Your task to perform on an android device: open app "Truecaller" (install if not already installed) and enter user name: "coauthor@gmail.com" and password: "quadrangle" Image 0: 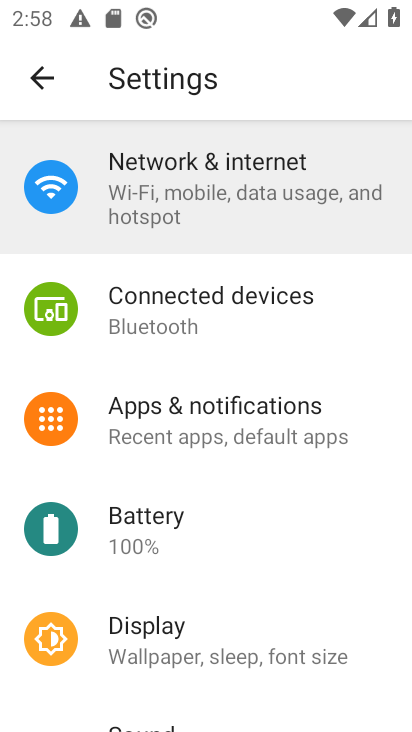
Step 0: press home button
Your task to perform on an android device: open app "Truecaller" (install if not already installed) and enter user name: "coauthor@gmail.com" and password: "quadrangle" Image 1: 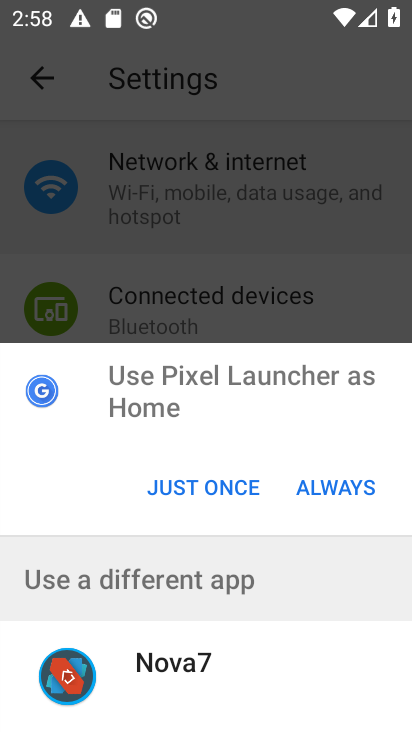
Step 1: click (189, 485)
Your task to perform on an android device: open app "Truecaller" (install if not already installed) and enter user name: "coauthor@gmail.com" and password: "quadrangle" Image 2: 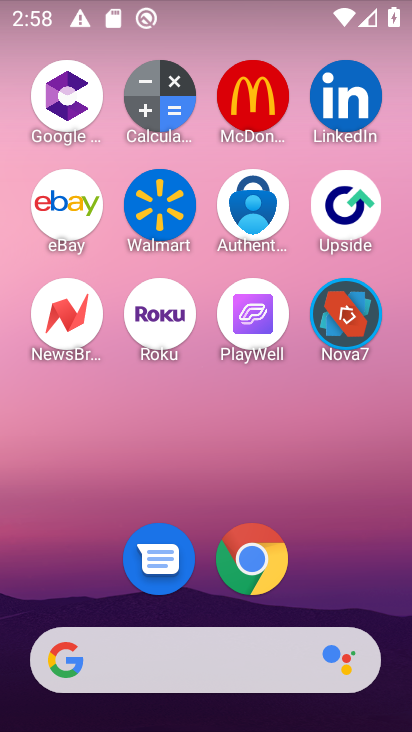
Step 2: drag from (201, 633) to (217, 156)
Your task to perform on an android device: open app "Truecaller" (install if not already installed) and enter user name: "coauthor@gmail.com" and password: "quadrangle" Image 3: 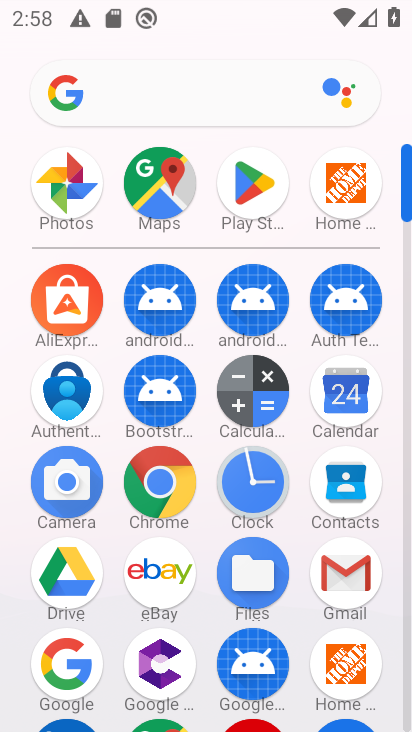
Step 3: click (257, 182)
Your task to perform on an android device: open app "Truecaller" (install if not already installed) and enter user name: "coauthor@gmail.com" and password: "quadrangle" Image 4: 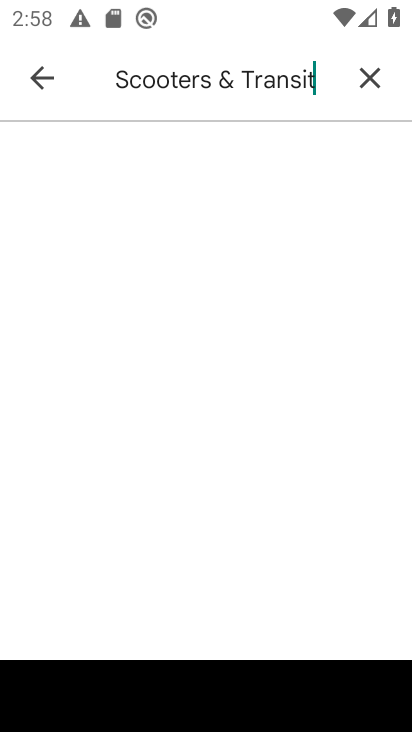
Step 4: click (357, 80)
Your task to perform on an android device: open app "Truecaller" (install if not already installed) and enter user name: "coauthor@gmail.com" and password: "quadrangle" Image 5: 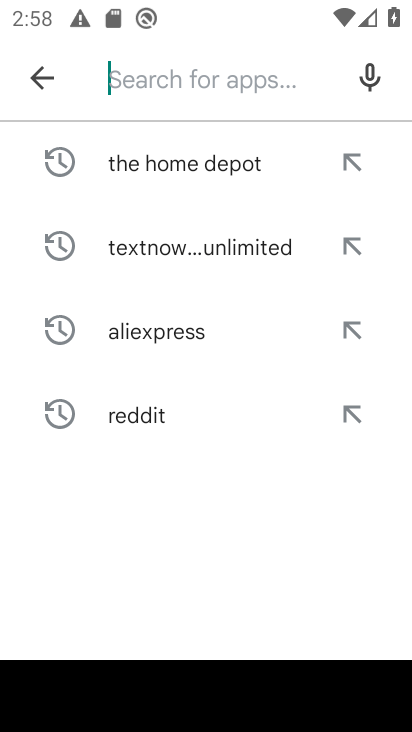
Step 5: type "Truecaller"
Your task to perform on an android device: open app "Truecaller" (install if not already installed) and enter user name: "coauthor@gmail.com" and password: "quadrangle" Image 6: 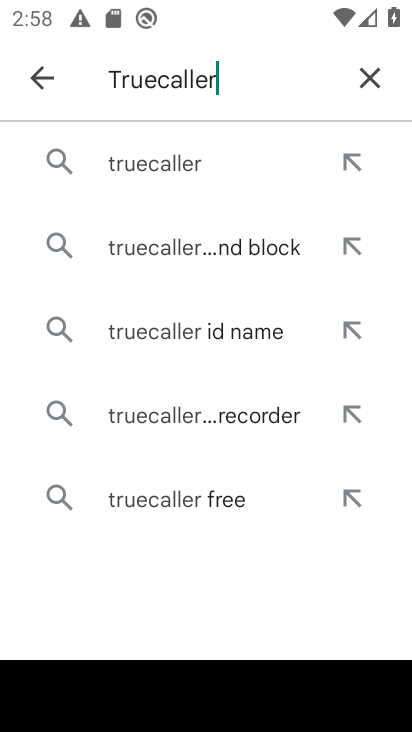
Step 6: click (188, 164)
Your task to perform on an android device: open app "Truecaller" (install if not already installed) and enter user name: "coauthor@gmail.com" and password: "quadrangle" Image 7: 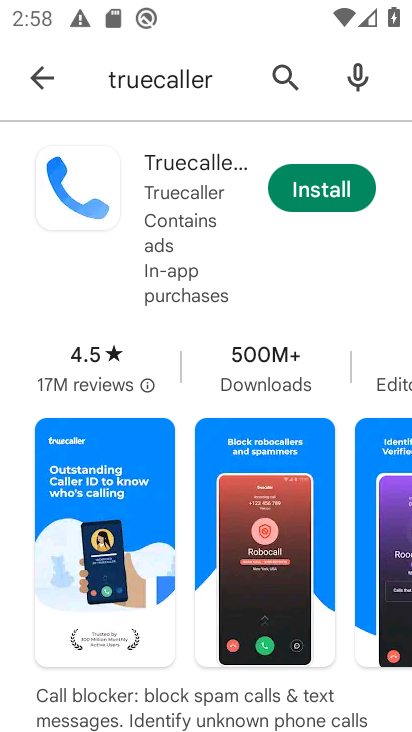
Step 7: click (350, 196)
Your task to perform on an android device: open app "Truecaller" (install if not already installed) and enter user name: "coauthor@gmail.com" and password: "quadrangle" Image 8: 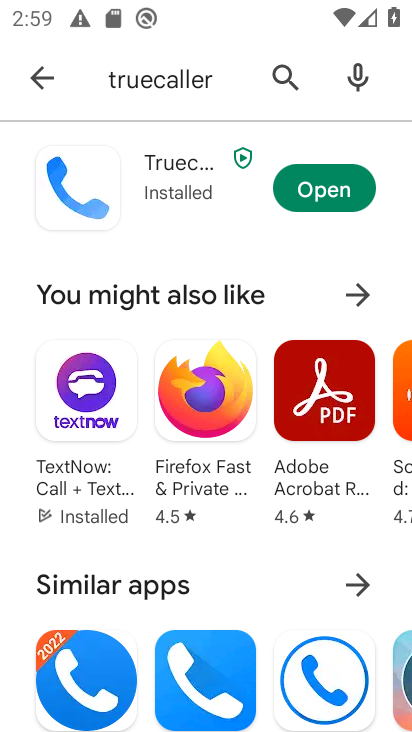
Step 8: click (340, 192)
Your task to perform on an android device: open app "Truecaller" (install if not already installed) and enter user name: "coauthor@gmail.com" and password: "quadrangle" Image 9: 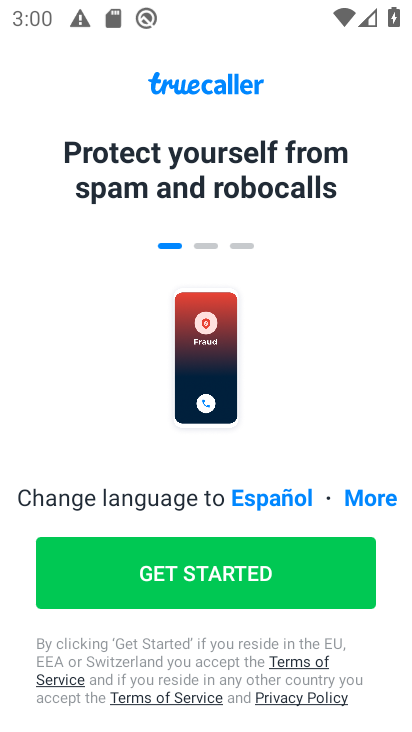
Step 9: click (217, 577)
Your task to perform on an android device: open app "Truecaller" (install if not already installed) and enter user name: "coauthor@gmail.com" and password: "quadrangle" Image 10: 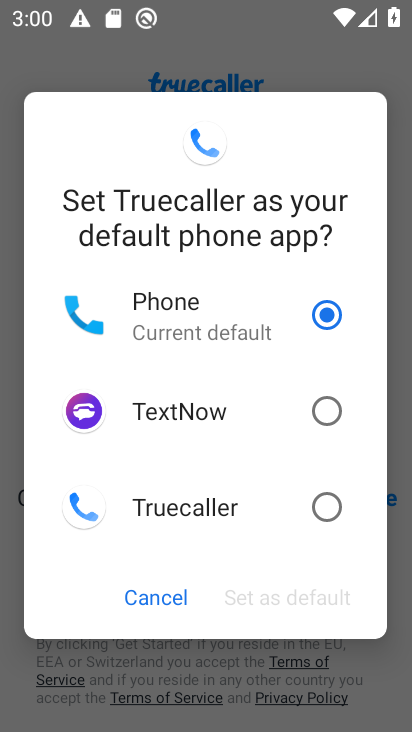
Step 10: click (172, 598)
Your task to perform on an android device: open app "Truecaller" (install if not already installed) and enter user name: "coauthor@gmail.com" and password: "quadrangle" Image 11: 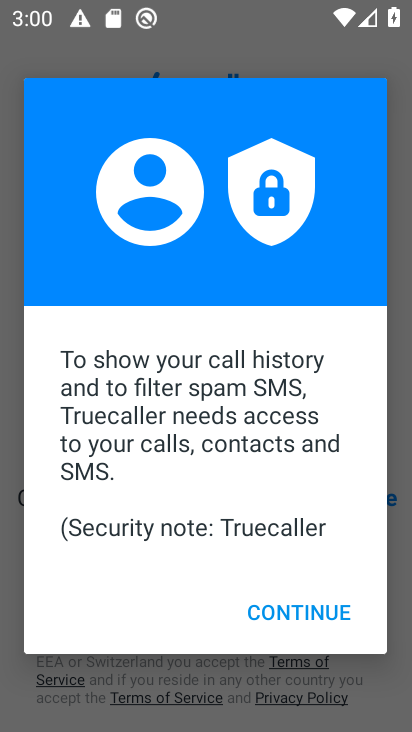
Step 11: click (323, 604)
Your task to perform on an android device: open app "Truecaller" (install if not already installed) and enter user name: "coauthor@gmail.com" and password: "quadrangle" Image 12: 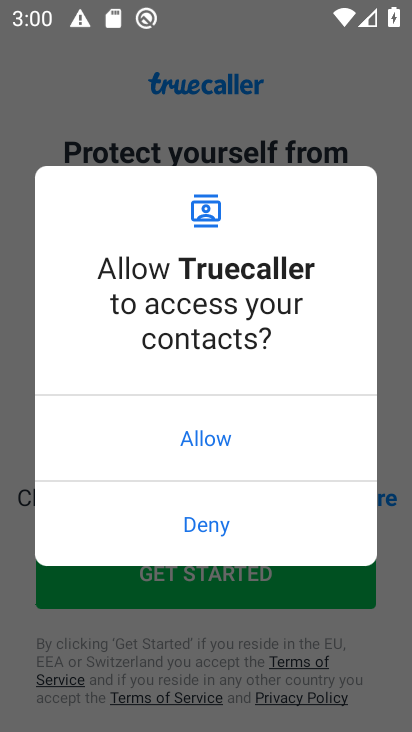
Step 12: task complete